Your task to perform on an android device: open a new tab in the chrome app Image 0: 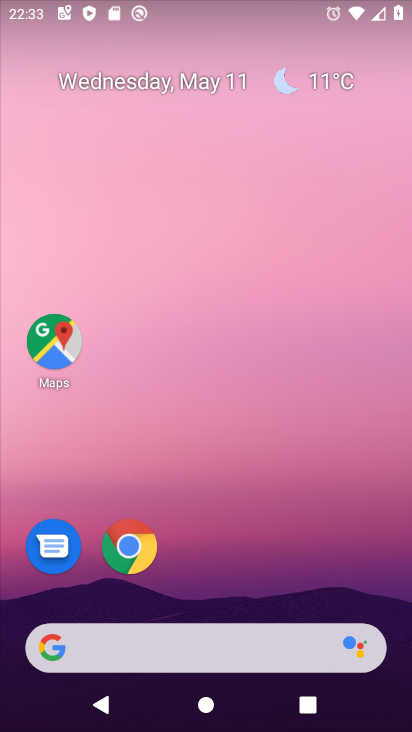
Step 0: click (128, 547)
Your task to perform on an android device: open a new tab in the chrome app Image 1: 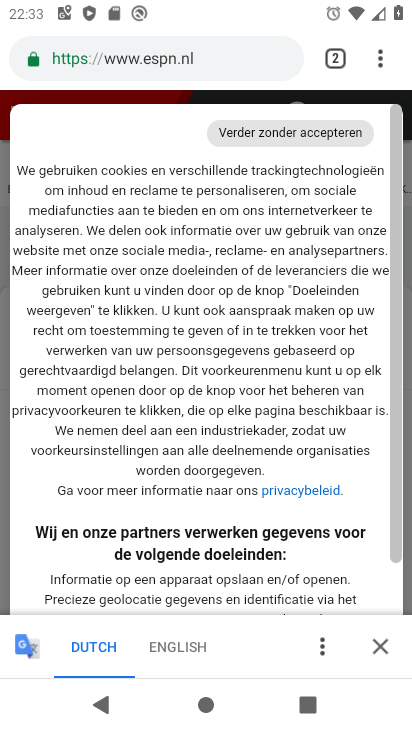
Step 1: click (377, 58)
Your task to perform on an android device: open a new tab in the chrome app Image 2: 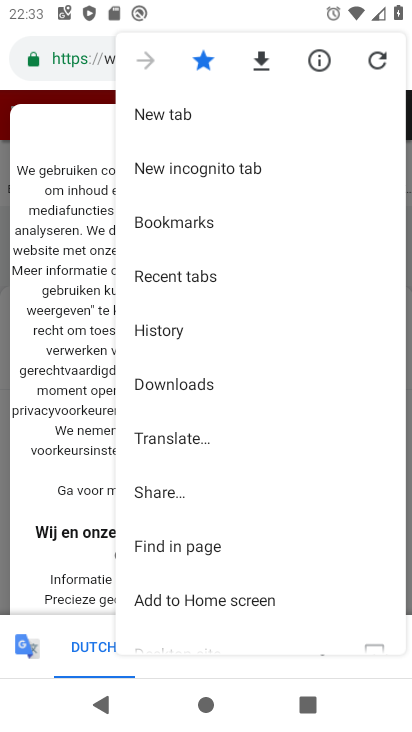
Step 2: click (177, 113)
Your task to perform on an android device: open a new tab in the chrome app Image 3: 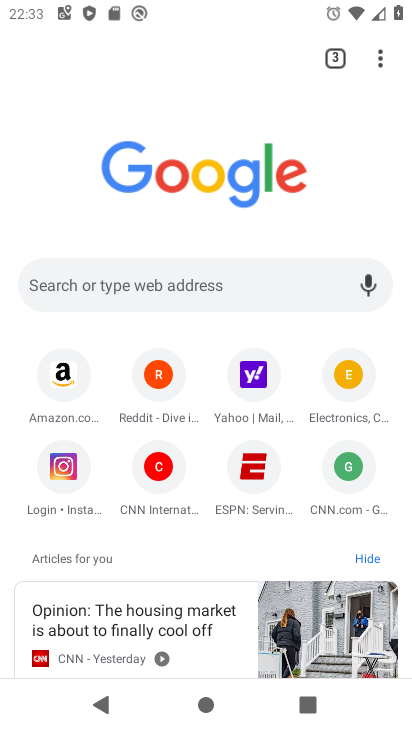
Step 3: task complete